Your task to perform on an android device: add a contact in the contacts app Image 0: 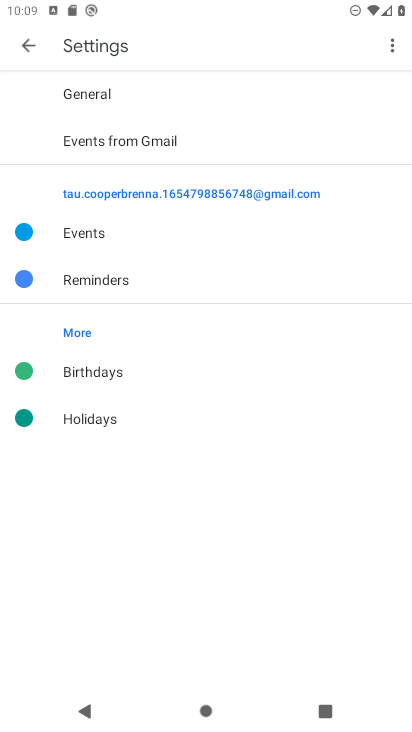
Step 0: press home button
Your task to perform on an android device: add a contact in the contacts app Image 1: 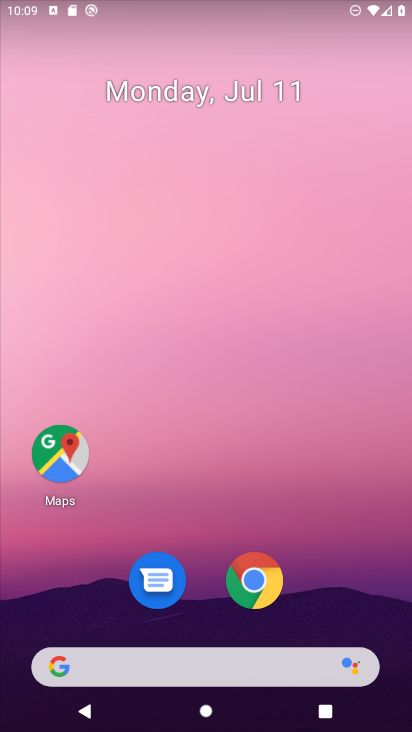
Step 1: drag from (209, 500) to (274, 0)
Your task to perform on an android device: add a contact in the contacts app Image 2: 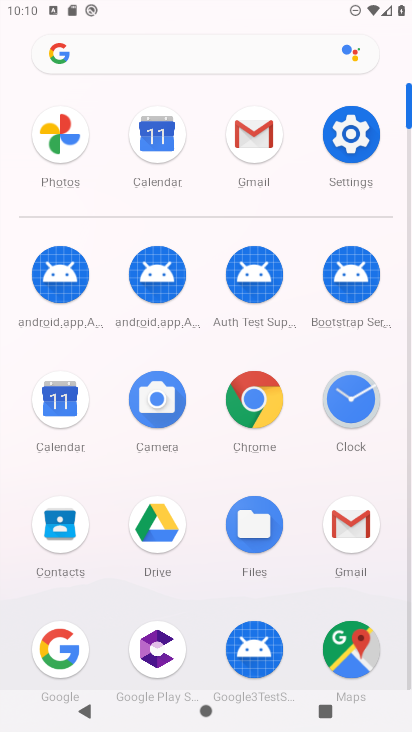
Step 2: click (72, 525)
Your task to perform on an android device: add a contact in the contacts app Image 3: 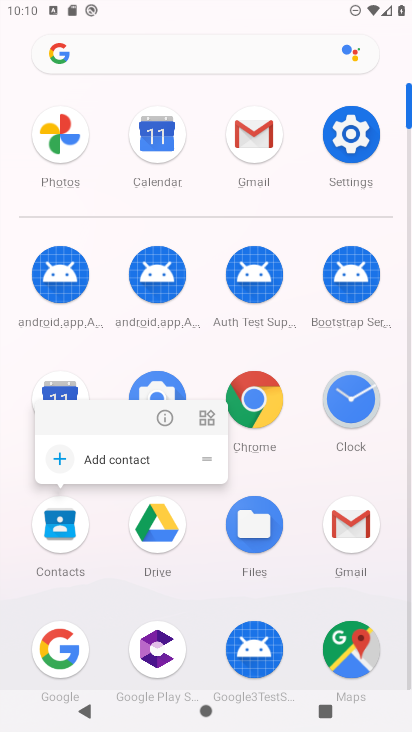
Step 3: click (53, 527)
Your task to perform on an android device: add a contact in the contacts app Image 4: 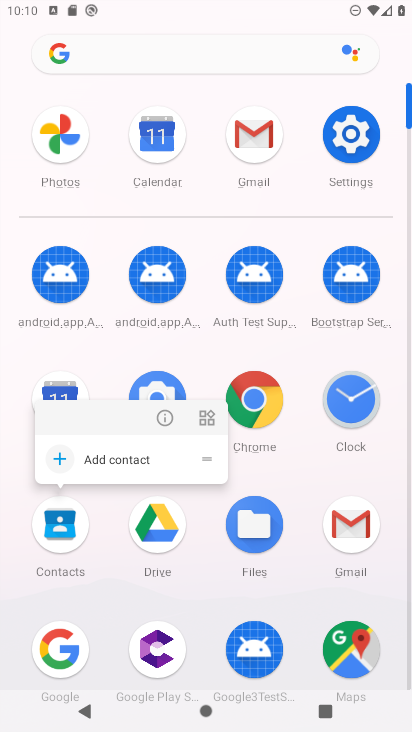
Step 4: click (53, 527)
Your task to perform on an android device: add a contact in the contacts app Image 5: 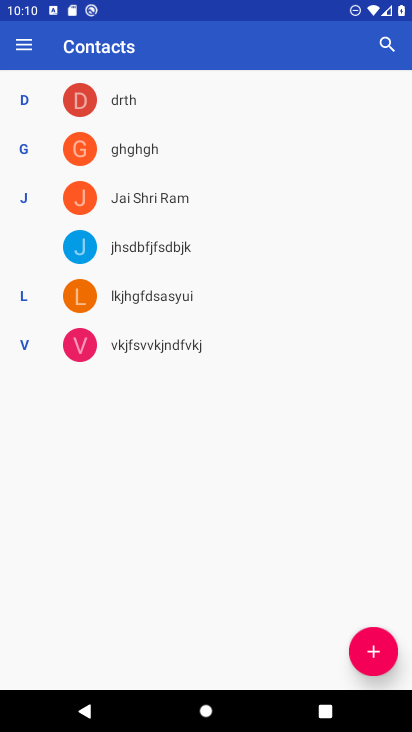
Step 5: click (384, 656)
Your task to perform on an android device: add a contact in the contacts app Image 6: 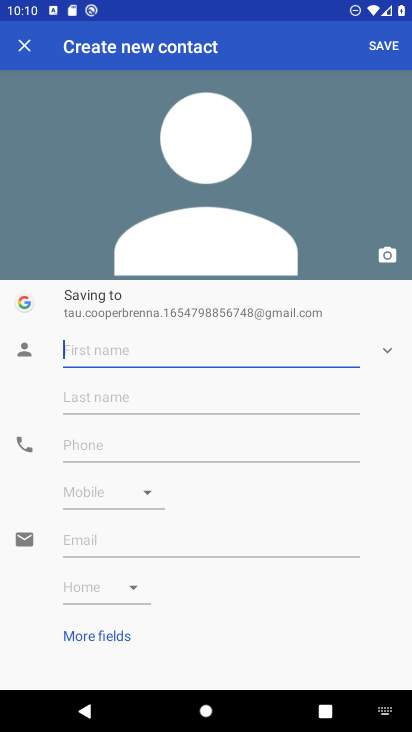
Step 6: type "Rukmani Krishna"
Your task to perform on an android device: add a contact in the contacts app Image 7: 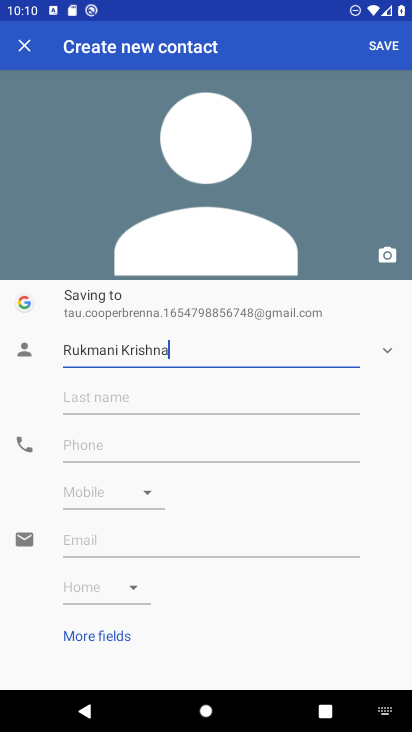
Step 7: click (233, 452)
Your task to perform on an android device: add a contact in the contacts app Image 8: 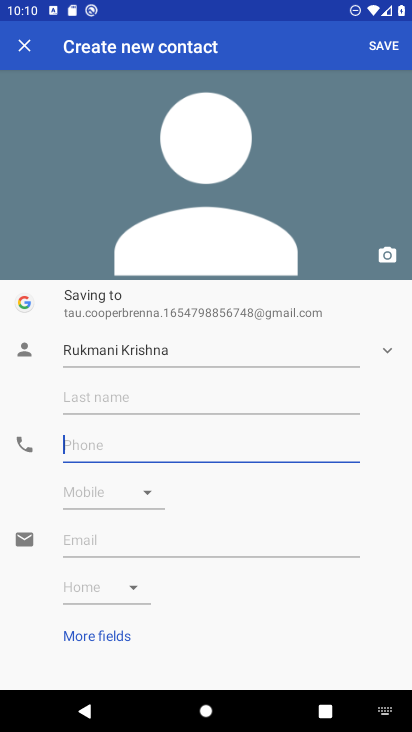
Step 8: type "9999777555"
Your task to perform on an android device: add a contact in the contacts app Image 9: 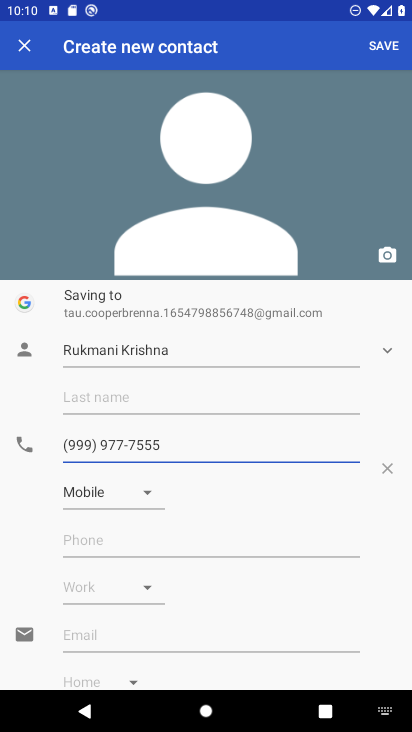
Step 9: click (390, 45)
Your task to perform on an android device: add a contact in the contacts app Image 10: 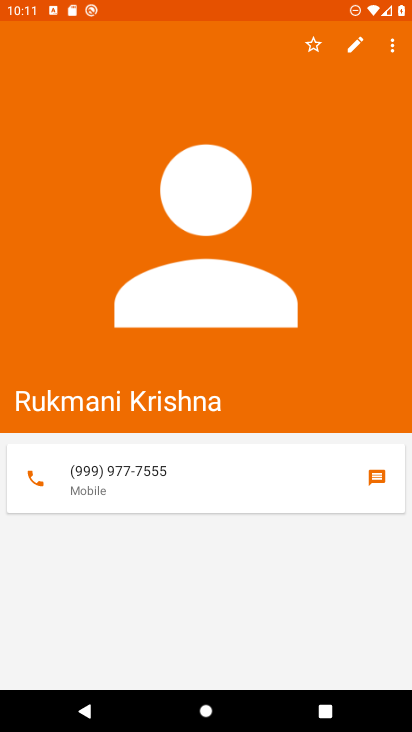
Step 10: task complete